Your task to perform on an android device: check the backup settings in the google photos Image 0: 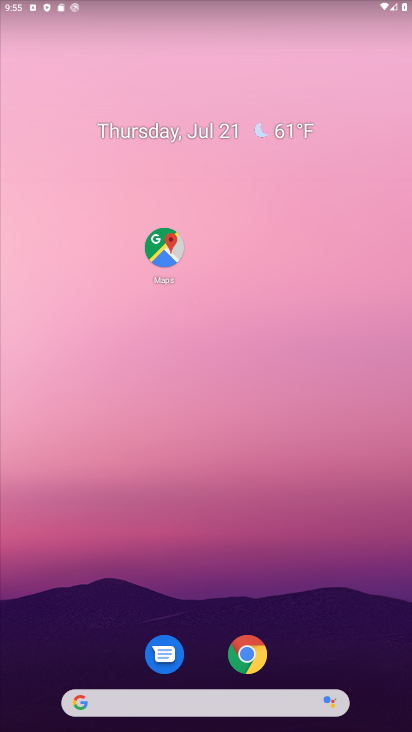
Step 0: drag from (78, 500) to (247, 51)
Your task to perform on an android device: check the backup settings in the google photos Image 1: 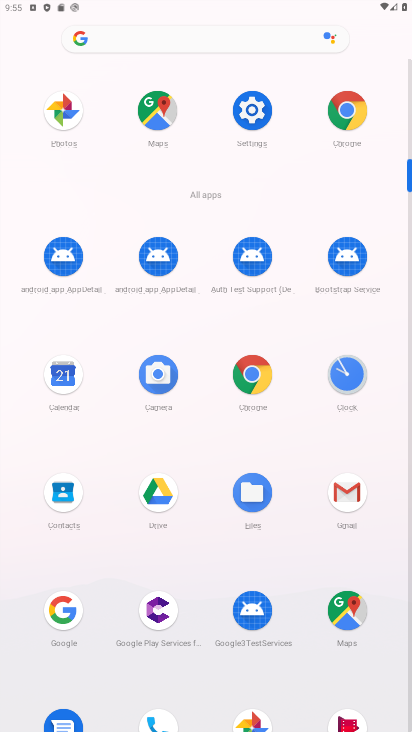
Step 1: click (64, 118)
Your task to perform on an android device: check the backup settings in the google photos Image 2: 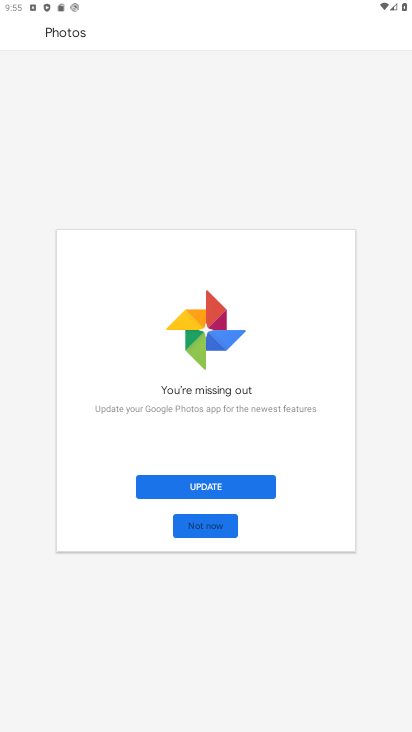
Step 2: click (200, 523)
Your task to perform on an android device: check the backup settings in the google photos Image 3: 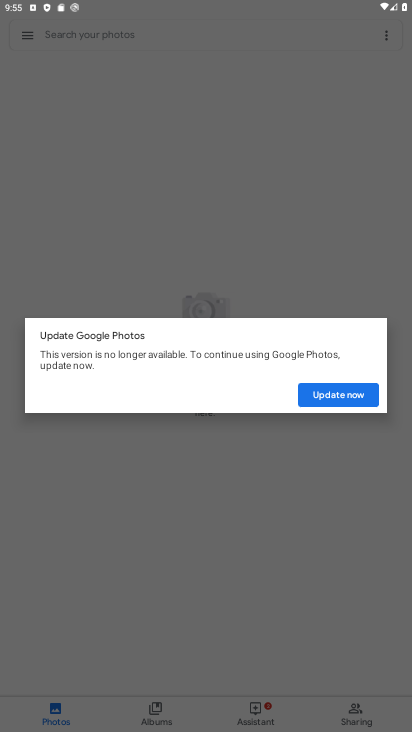
Step 3: click (328, 398)
Your task to perform on an android device: check the backup settings in the google photos Image 4: 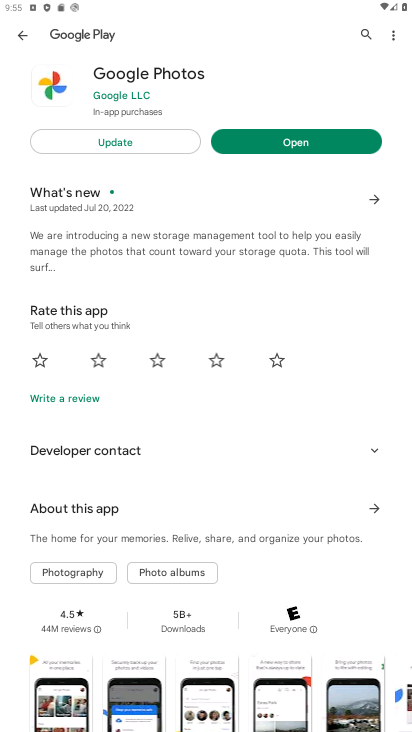
Step 4: click (292, 143)
Your task to perform on an android device: check the backup settings in the google photos Image 5: 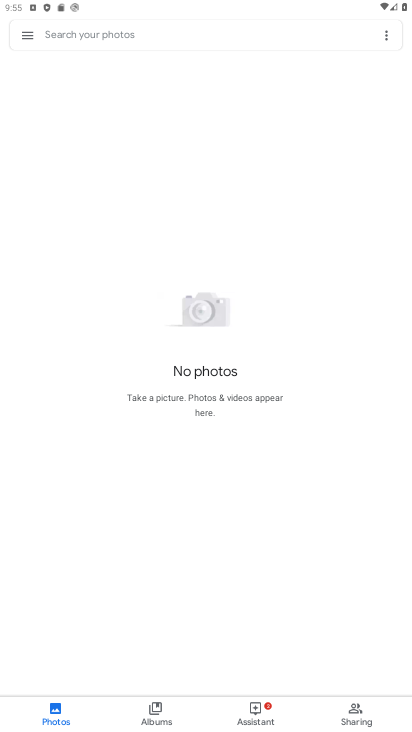
Step 5: click (24, 34)
Your task to perform on an android device: check the backup settings in the google photos Image 6: 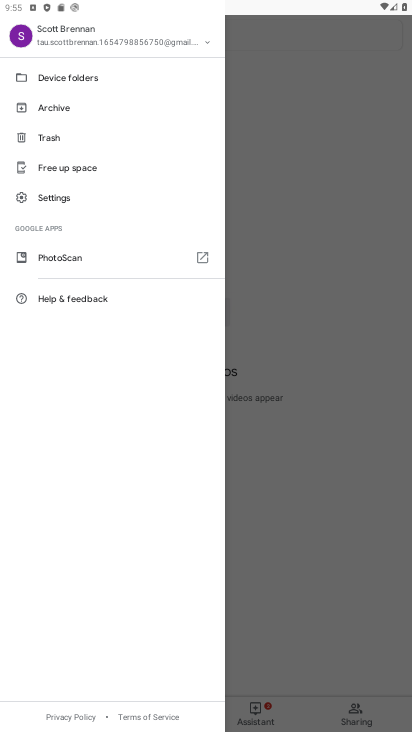
Step 6: click (62, 197)
Your task to perform on an android device: check the backup settings in the google photos Image 7: 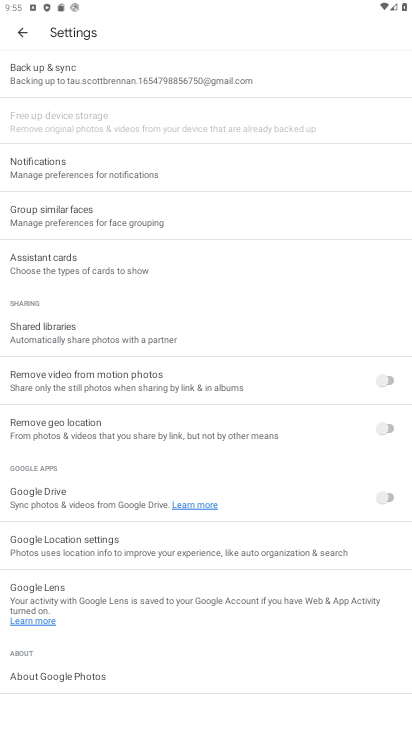
Step 7: click (88, 75)
Your task to perform on an android device: check the backup settings in the google photos Image 8: 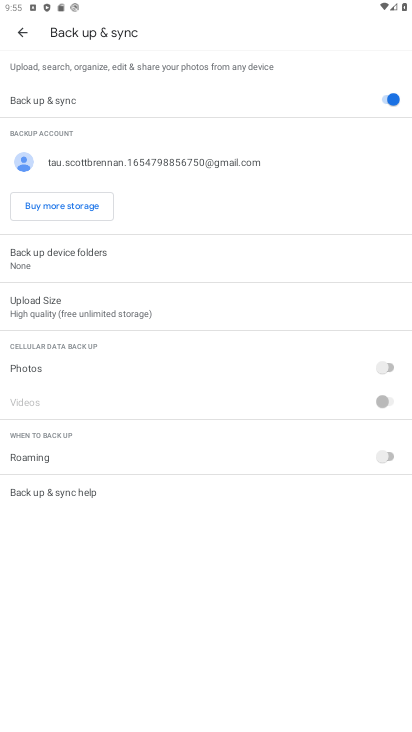
Step 8: task complete